Your task to perform on an android device: Go to internet settings Image 0: 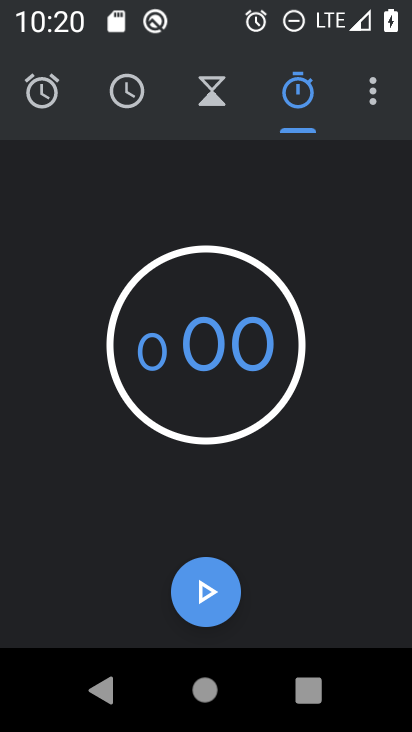
Step 0: press home button
Your task to perform on an android device: Go to internet settings Image 1: 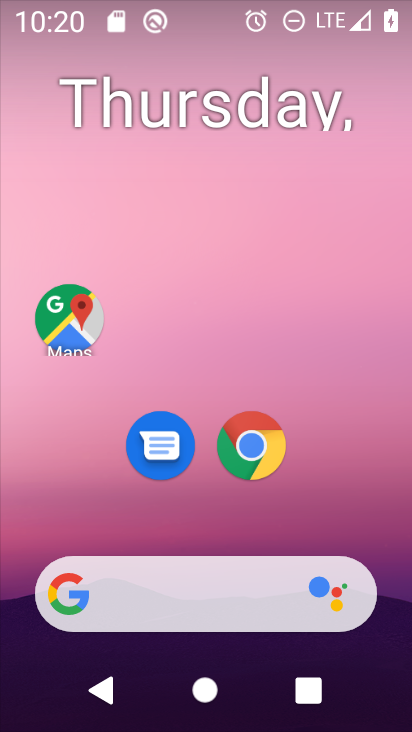
Step 1: click (389, 633)
Your task to perform on an android device: Go to internet settings Image 2: 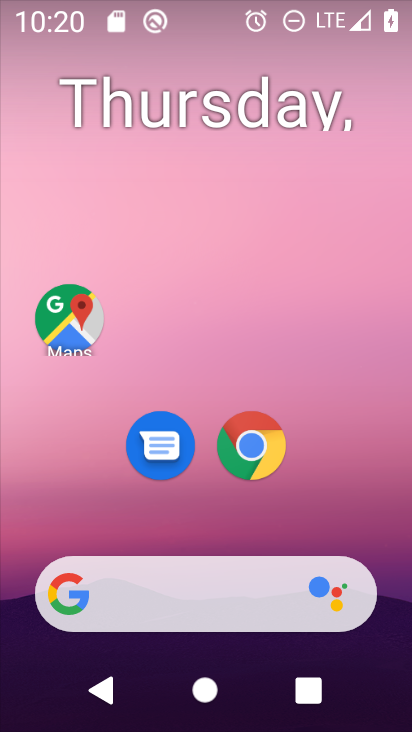
Step 2: drag from (400, 510) to (319, 22)
Your task to perform on an android device: Go to internet settings Image 3: 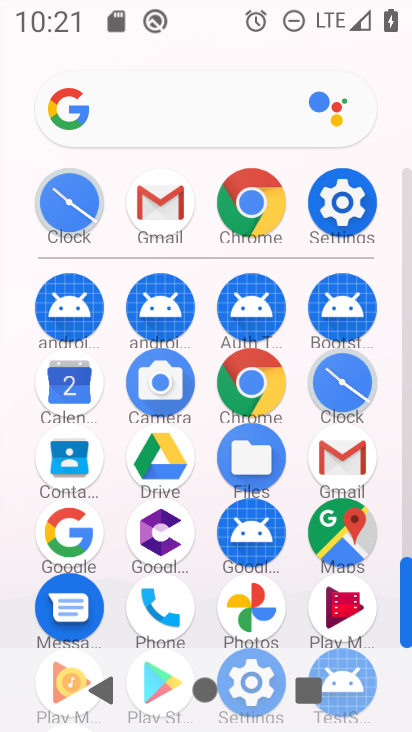
Step 3: click (346, 214)
Your task to perform on an android device: Go to internet settings Image 4: 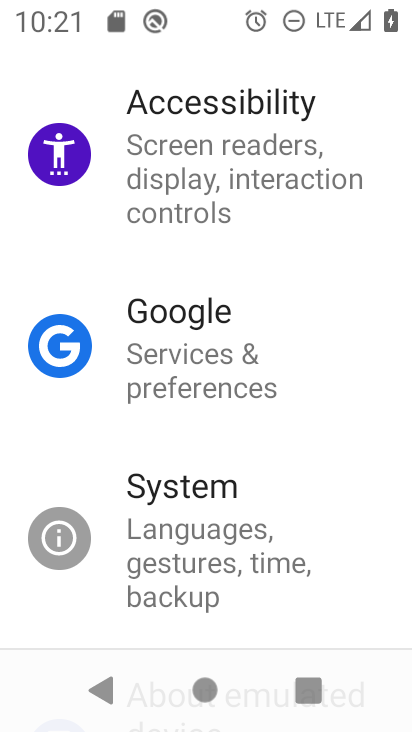
Step 4: drag from (192, 138) to (267, 648)
Your task to perform on an android device: Go to internet settings Image 5: 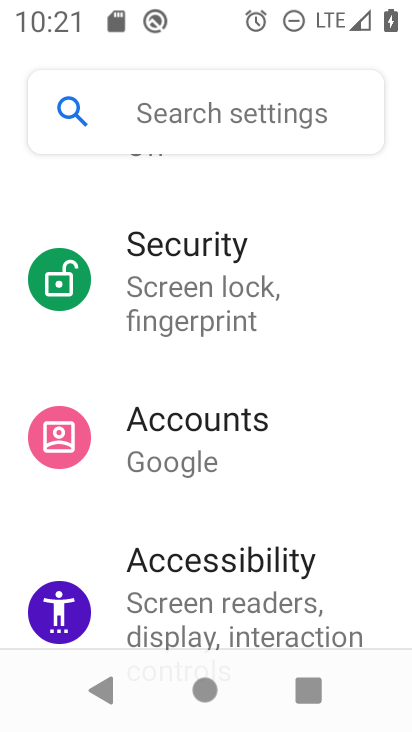
Step 5: drag from (180, 205) to (219, 626)
Your task to perform on an android device: Go to internet settings Image 6: 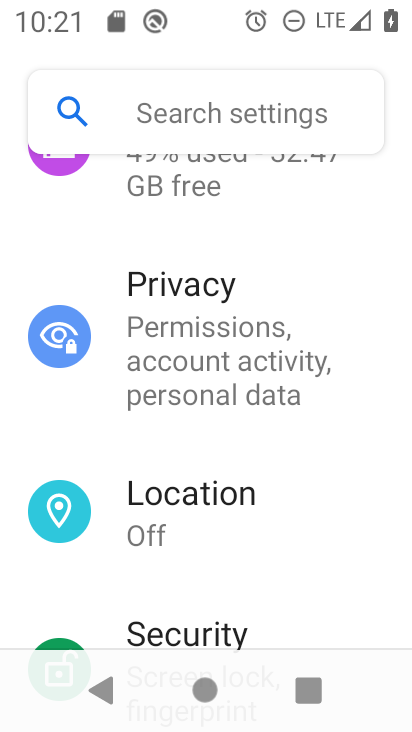
Step 6: drag from (137, 206) to (181, 706)
Your task to perform on an android device: Go to internet settings Image 7: 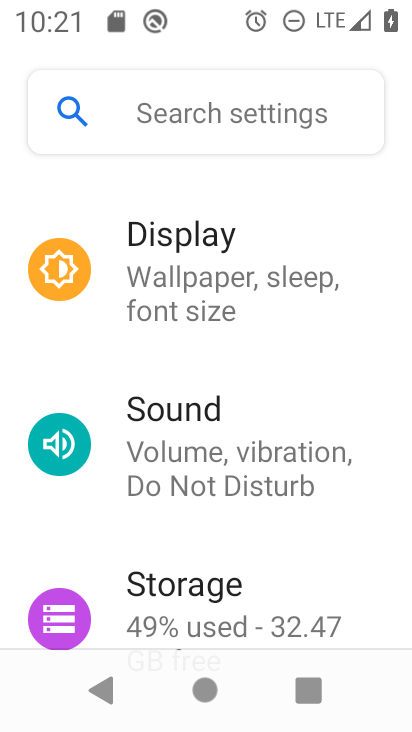
Step 7: drag from (185, 207) to (195, 726)
Your task to perform on an android device: Go to internet settings Image 8: 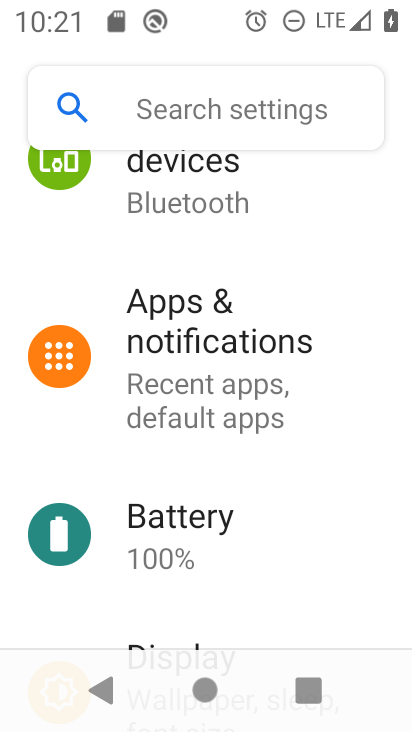
Step 8: drag from (203, 217) to (251, 573)
Your task to perform on an android device: Go to internet settings Image 9: 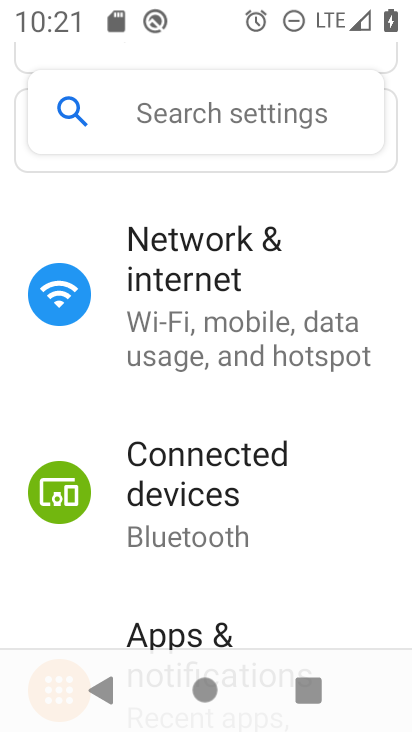
Step 9: click (185, 320)
Your task to perform on an android device: Go to internet settings Image 10: 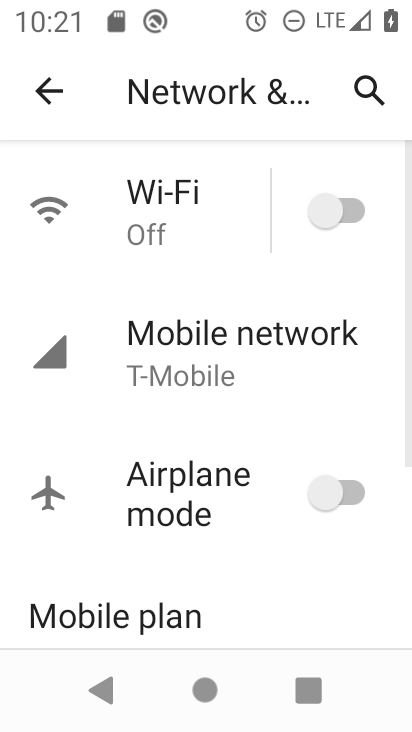
Step 10: task complete